Your task to perform on an android device: Find coffee shops on Maps Image 0: 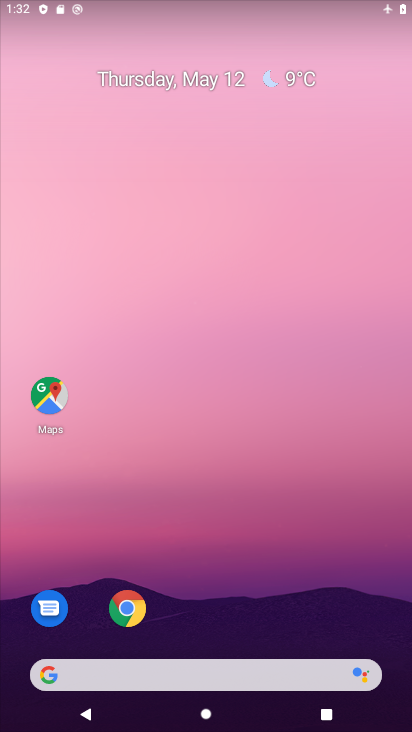
Step 0: click (56, 402)
Your task to perform on an android device: Find coffee shops on Maps Image 1: 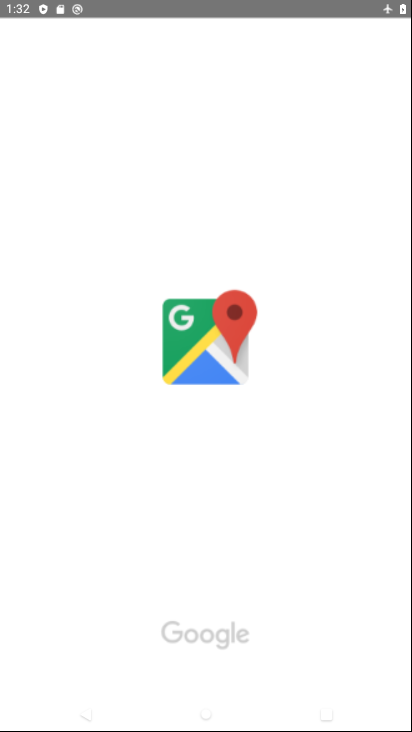
Step 1: click (232, 325)
Your task to perform on an android device: Find coffee shops on Maps Image 2: 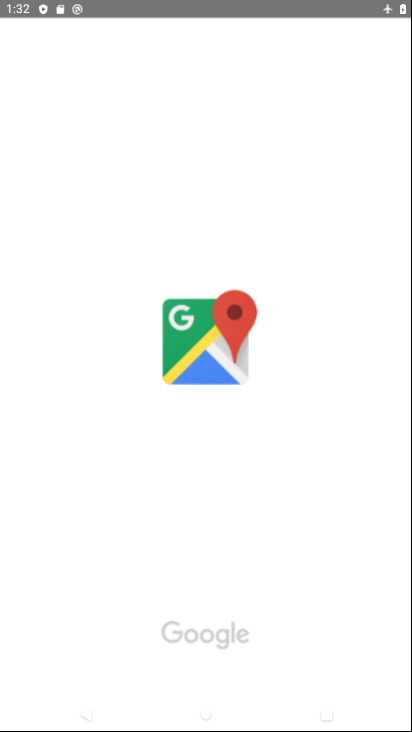
Step 2: click (232, 325)
Your task to perform on an android device: Find coffee shops on Maps Image 3: 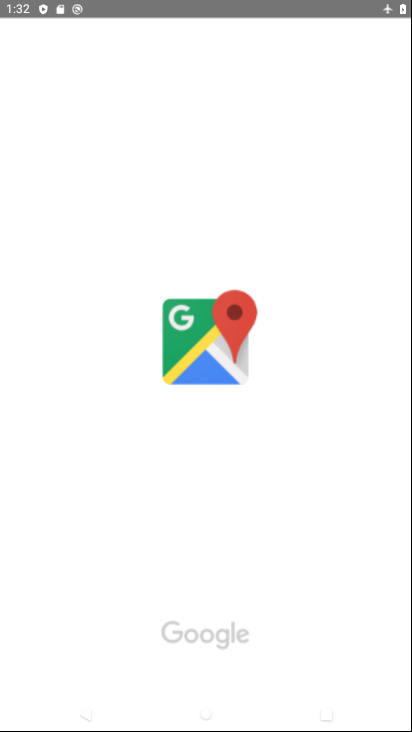
Step 3: click (232, 325)
Your task to perform on an android device: Find coffee shops on Maps Image 4: 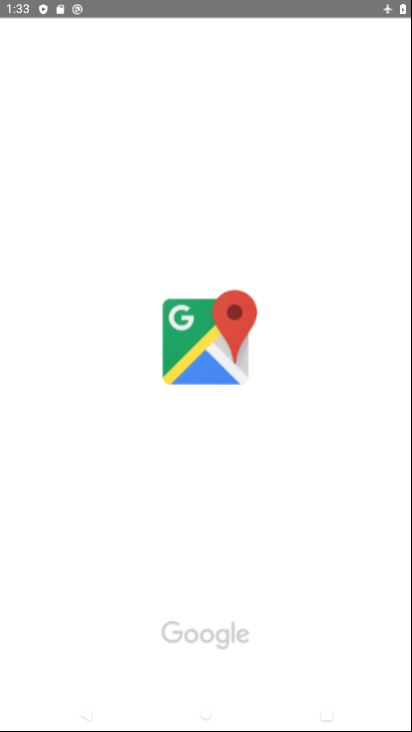
Step 4: task complete